Your task to perform on an android device: turn on showing notifications on the lock screen Image 0: 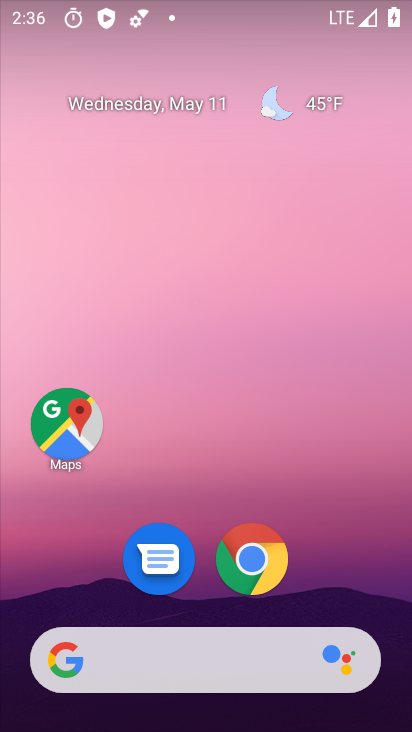
Step 0: drag from (329, 523) to (202, 69)
Your task to perform on an android device: turn on showing notifications on the lock screen Image 1: 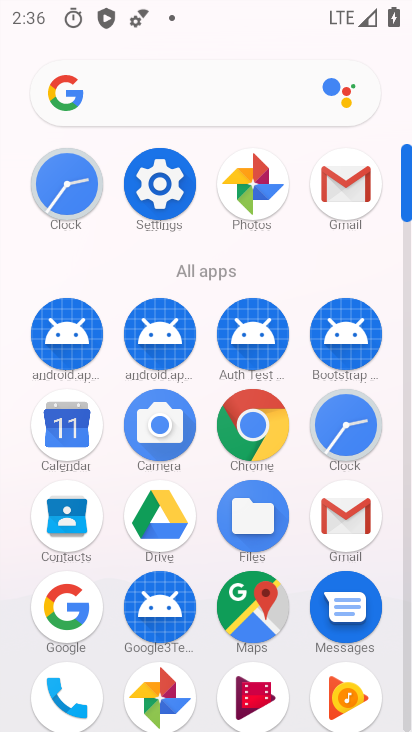
Step 1: click (160, 182)
Your task to perform on an android device: turn on showing notifications on the lock screen Image 2: 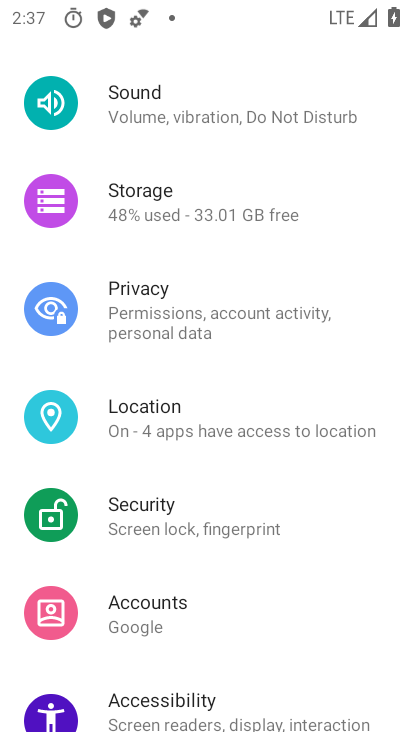
Step 2: drag from (226, 166) to (220, 638)
Your task to perform on an android device: turn on showing notifications on the lock screen Image 3: 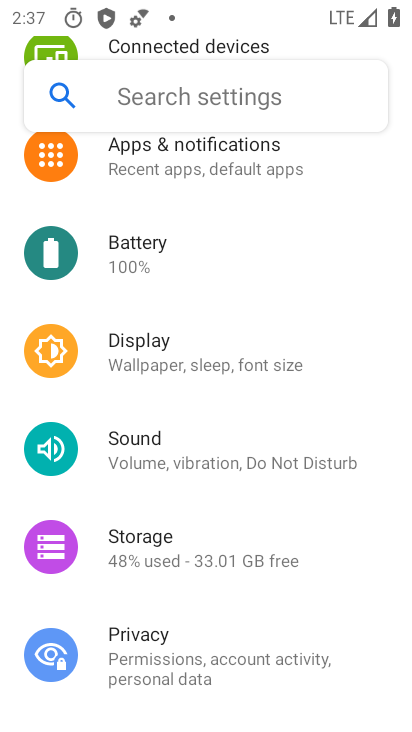
Step 3: click (218, 166)
Your task to perform on an android device: turn on showing notifications on the lock screen Image 4: 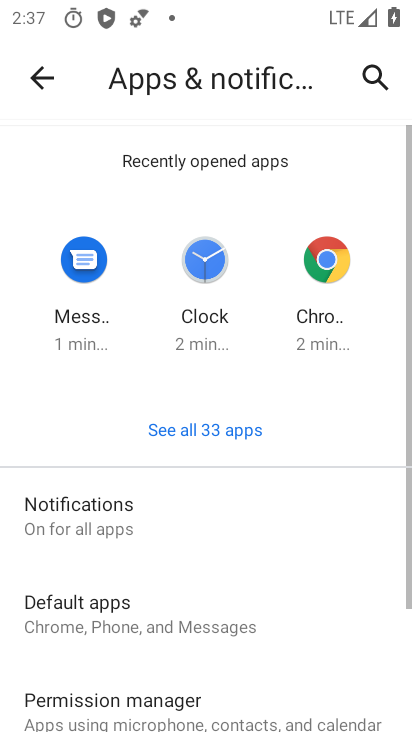
Step 4: click (163, 531)
Your task to perform on an android device: turn on showing notifications on the lock screen Image 5: 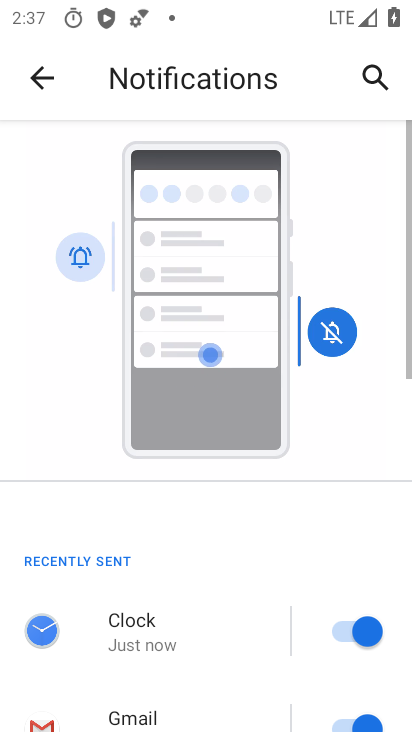
Step 5: drag from (231, 635) to (197, 141)
Your task to perform on an android device: turn on showing notifications on the lock screen Image 6: 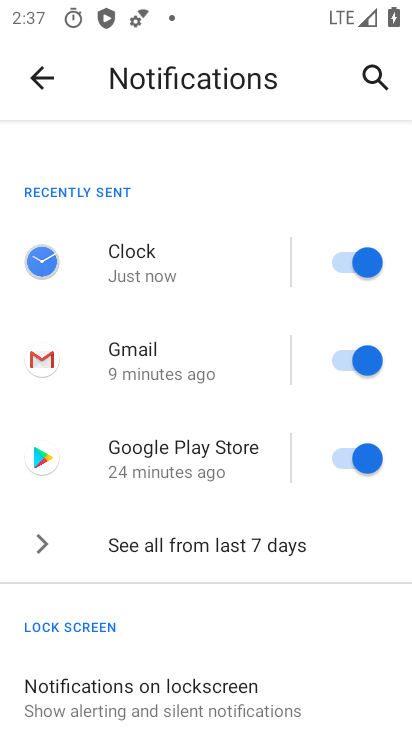
Step 6: drag from (168, 556) to (189, 235)
Your task to perform on an android device: turn on showing notifications on the lock screen Image 7: 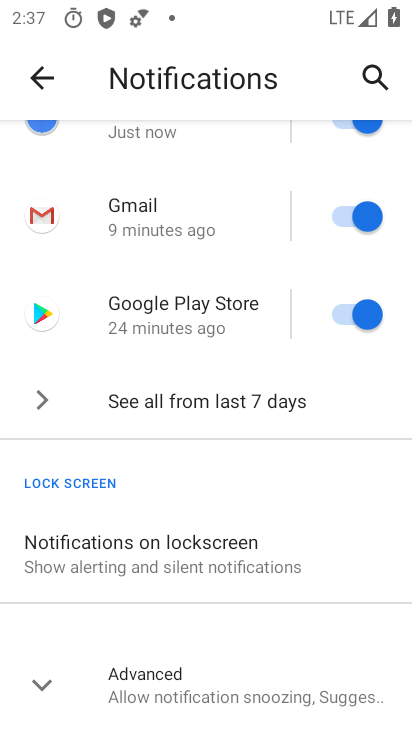
Step 7: click (191, 553)
Your task to perform on an android device: turn on showing notifications on the lock screen Image 8: 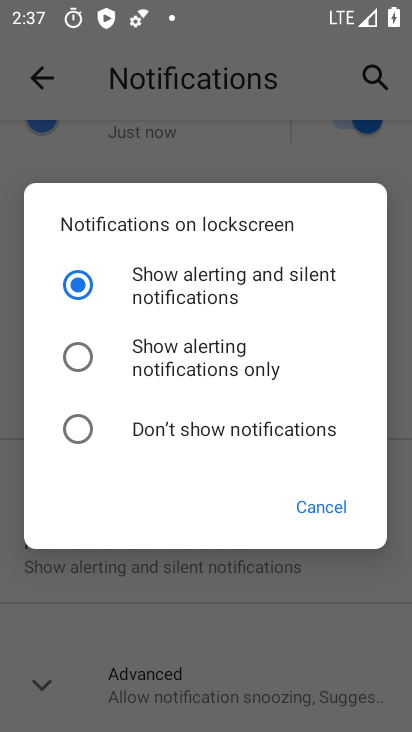
Step 8: task complete